Your task to perform on an android device: Go to internet settings Image 0: 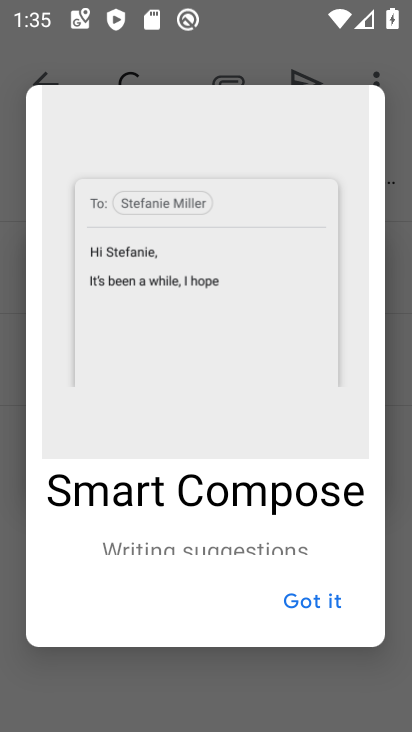
Step 0: press home button
Your task to perform on an android device: Go to internet settings Image 1: 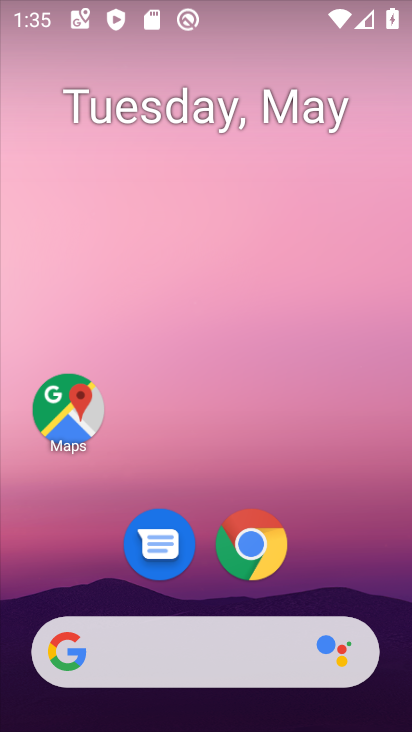
Step 1: drag from (240, 488) to (272, 116)
Your task to perform on an android device: Go to internet settings Image 2: 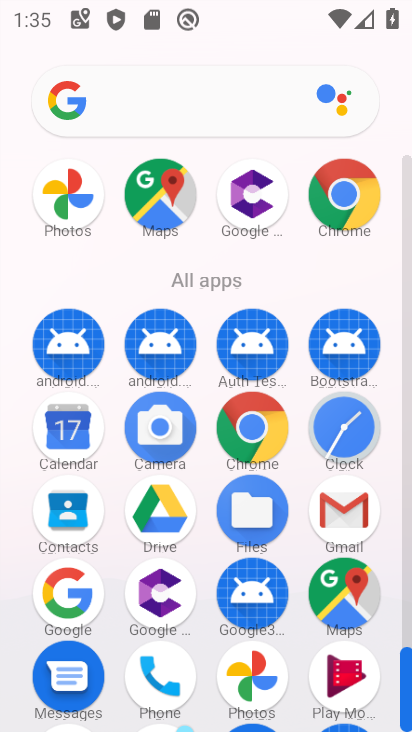
Step 2: drag from (226, 620) to (255, 148)
Your task to perform on an android device: Go to internet settings Image 3: 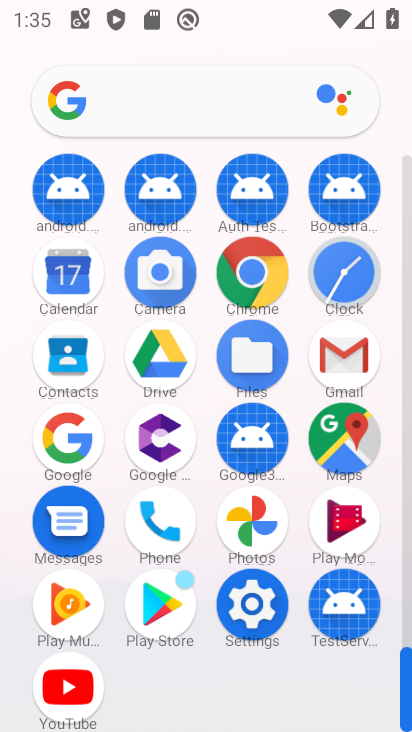
Step 3: click (251, 578)
Your task to perform on an android device: Go to internet settings Image 4: 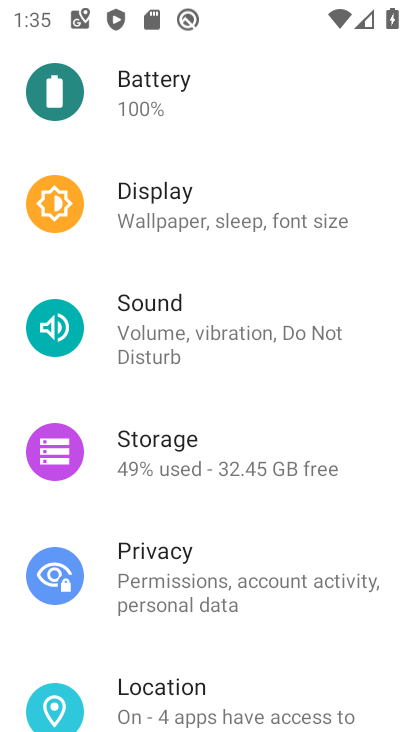
Step 4: drag from (233, 154) to (154, 678)
Your task to perform on an android device: Go to internet settings Image 5: 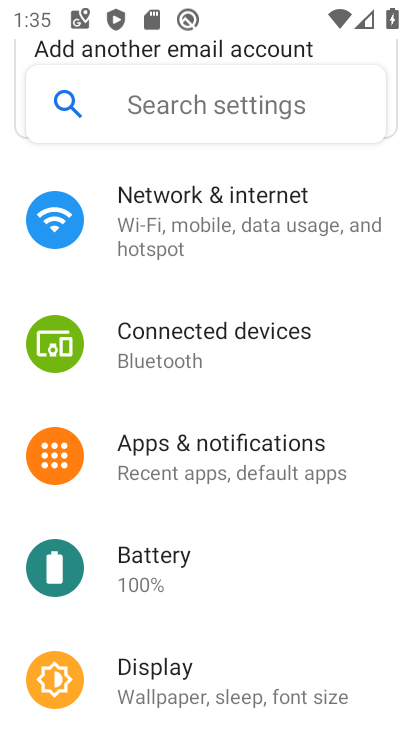
Step 5: click (220, 229)
Your task to perform on an android device: Go to internet settings Image 6: 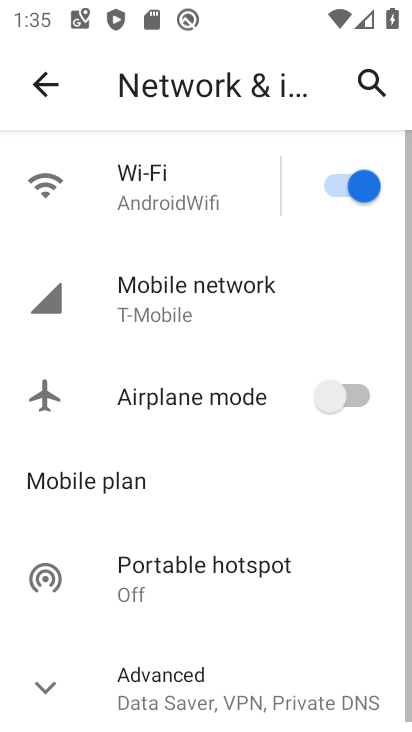
Step 6: task complete